Your task to perform on an android device: Go to Reddit.com Image 0: 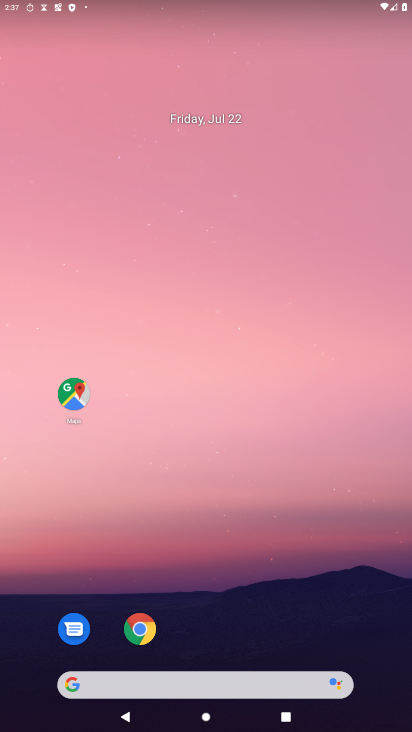
Step 0: drag from (355, 407) to (387, 636)
Your task to perform on an android device: Go to Reddit.com Image 1: 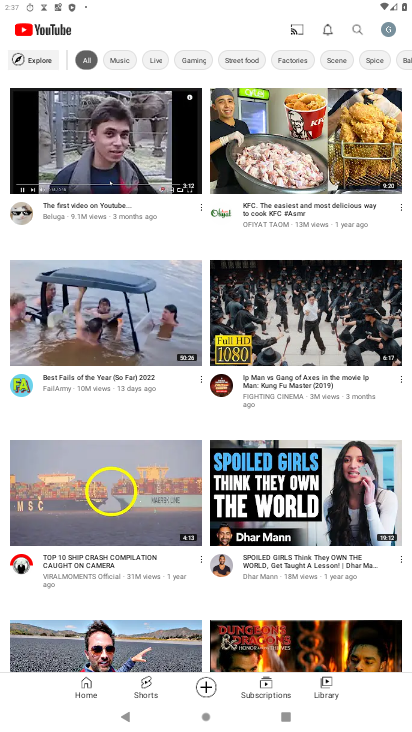
Step 1: press home button
Your task to perform on an android device: Go to Reddit.com Image 2: 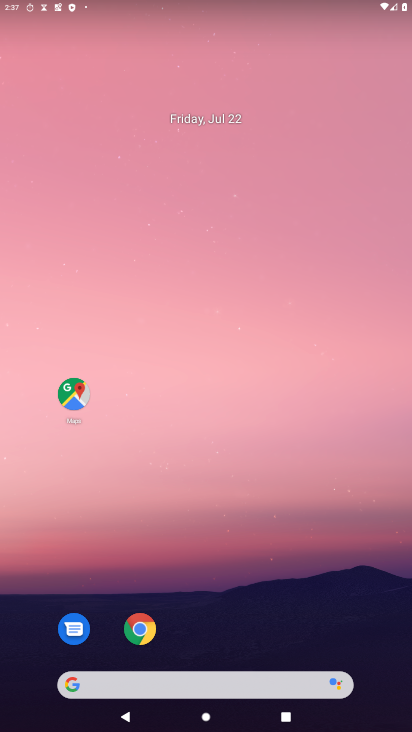
Step 2: drag from (209, 698) to (254, 26)
Your task to perform on an android device: Go to Reddit.com Image 3: 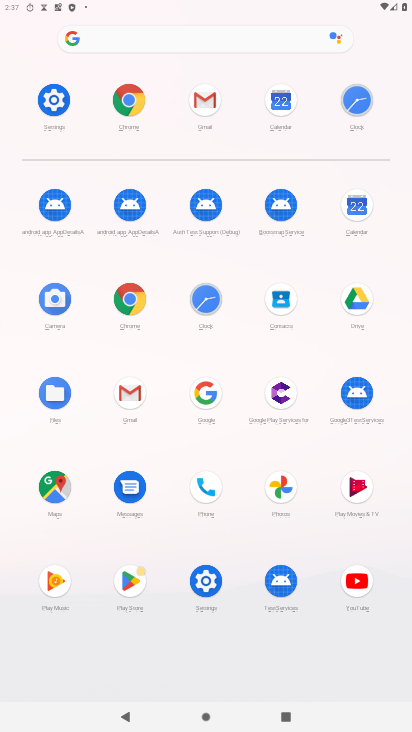
Step 3: click (134, 297)
Your task to perform on an android device: Go to Reddit.com Image 4: 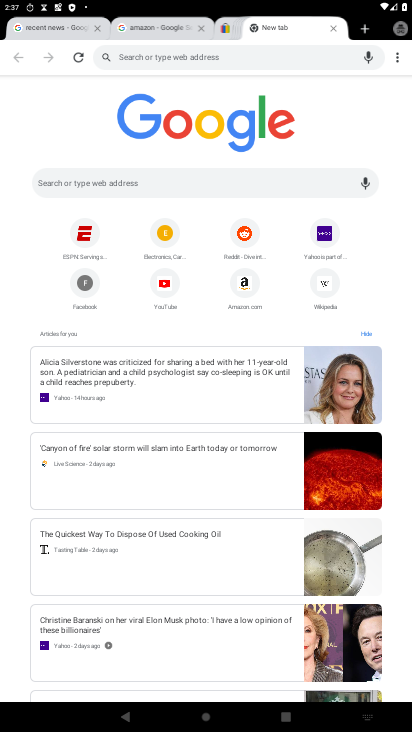
Step 4: click (182, 173)
Your task to perform on an android device: Go to Reddit.com Image 5: 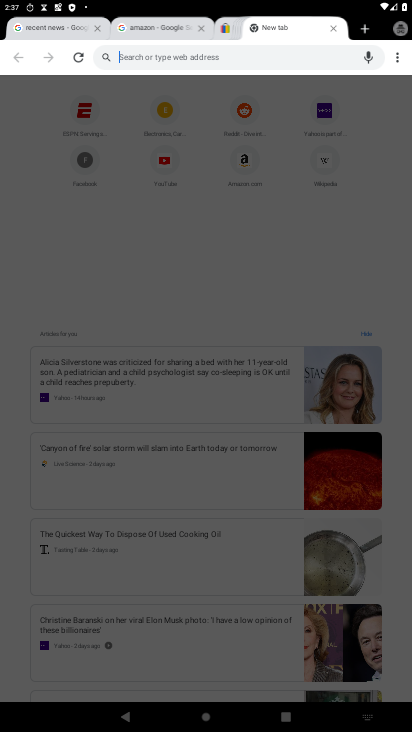
Step 5: type "reddit.com"
Your task to perform on an android device: Go to Reddit.com Image 6: 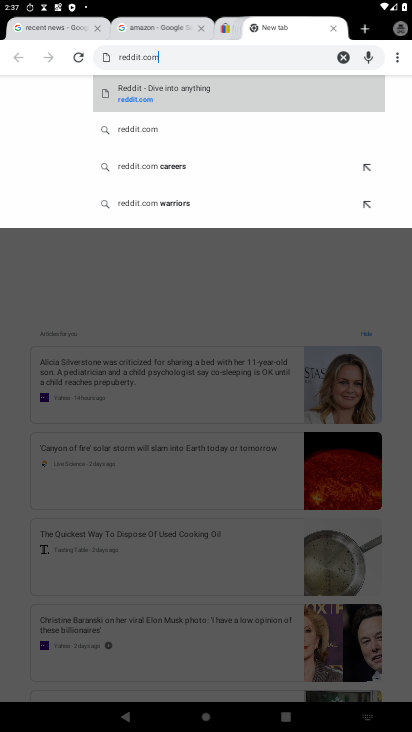
Step 6: click (220, 99)
Your task to perform on an android device: Go to Reddit.com Image 7: 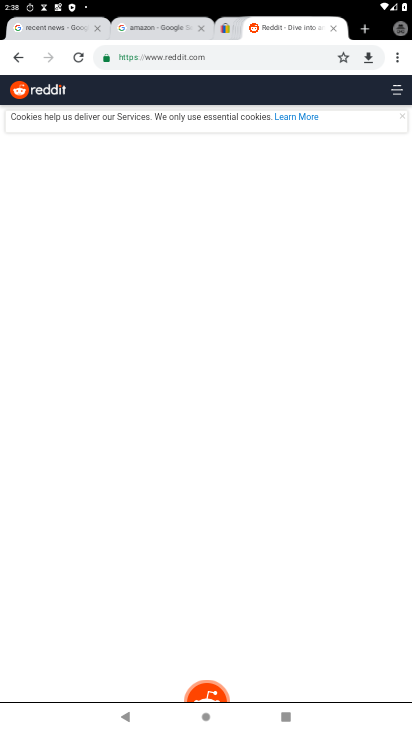
Step 7: task complete